Your task to perform on an android device: add a label to a message in the gmail app Image 0: 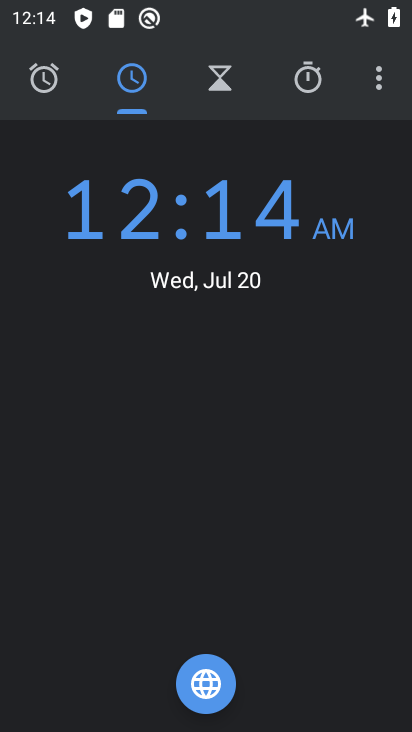
Step 0: press home button
Your task to perform on an android device: add a label to a message in the gmail app Image 1: 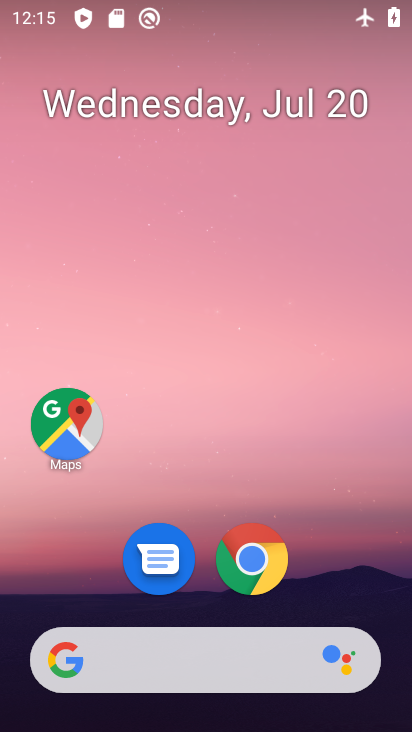
Step 1: drag from (369, 566) to (361, 110)
Your task to perform on an android device: add a label to a message in the gmail app Image 2: 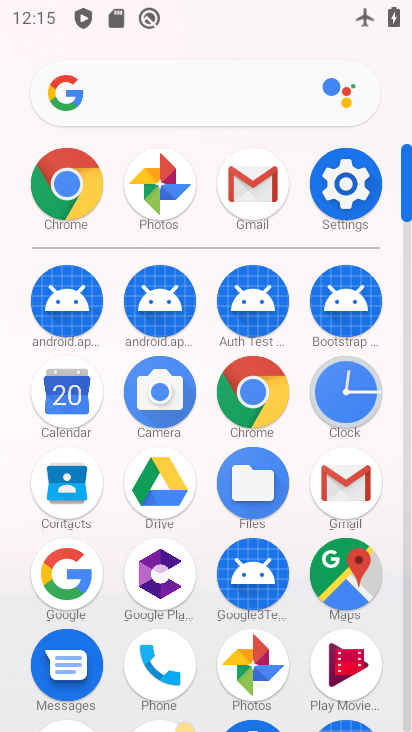
Step 2: click (354, 472)
Your task to perform on an android device: add a label to a message in the gmail app Image 3: 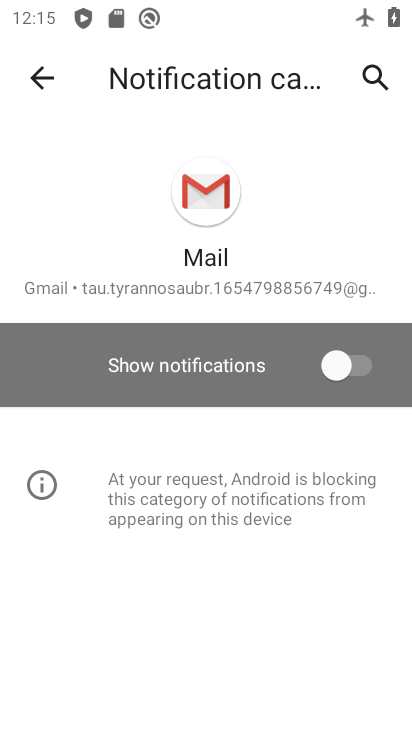
Step 3: press back button
Your task to perform on an android device: add a label to a message in the gmail app Image 4: 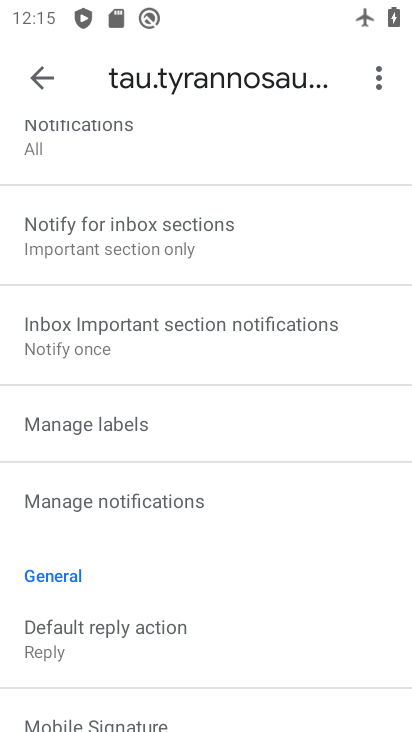
Step 4: press back button
Your task to perform on an android device: add a label to a message in the gmail app Image 5: 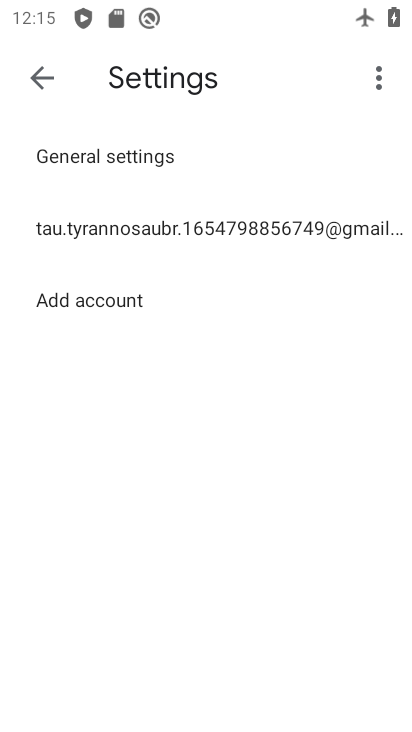
Step 5: press back button
Your task to perform on an android device: add a label to a message in the gmail app Image 6: 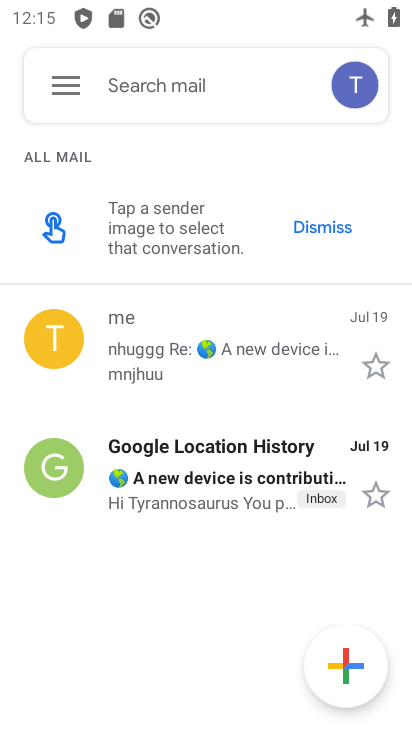
Step 6: click (215, 458)
Your task to perform on an android device: add a label to a message in the gmail app Image 7: 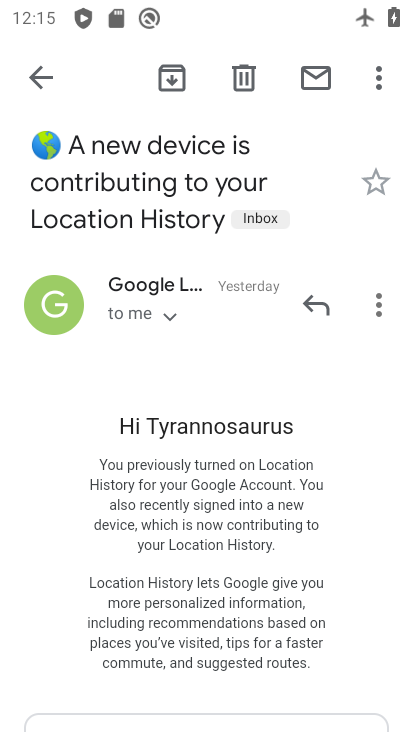
Step 7: click (254, 212)
Your task to perform on an android device: add a label to a message in the gmail app Image 8: 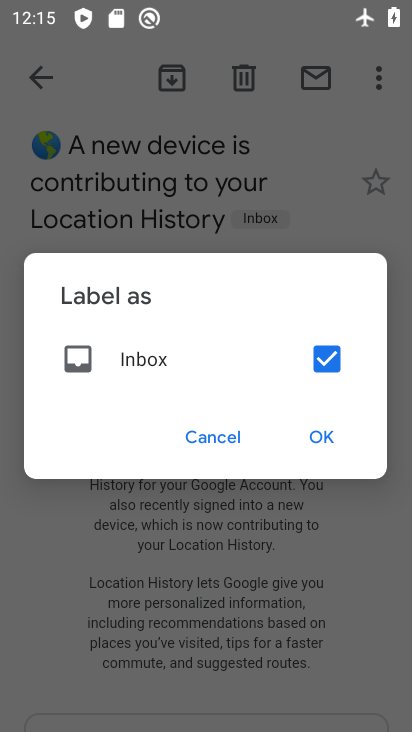
Step 8: click (336, 437)
Your task to perform on an android device: add a label to a message in the gmail app Image 9: 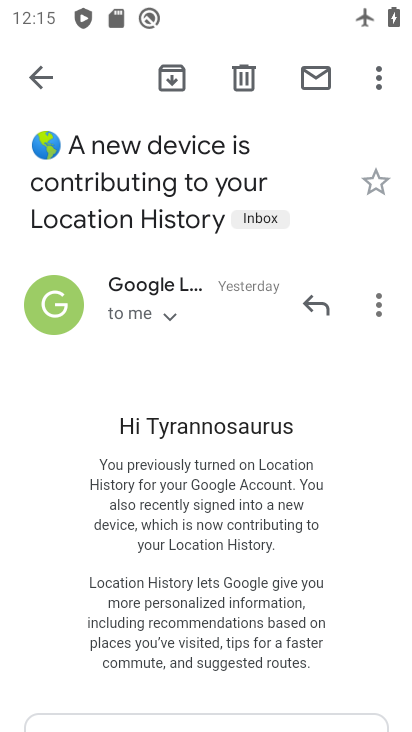
Step 9: click (272, 219)
Your task to perform on an android device: add a label to a message in the gmail app Image 10: 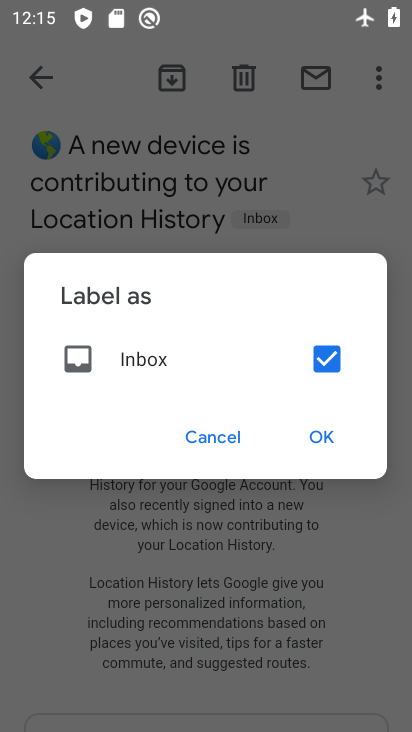
Step 10: click (321, 365)
Your task to perform on an android device: add a label to a message in the gmail app Image 11: 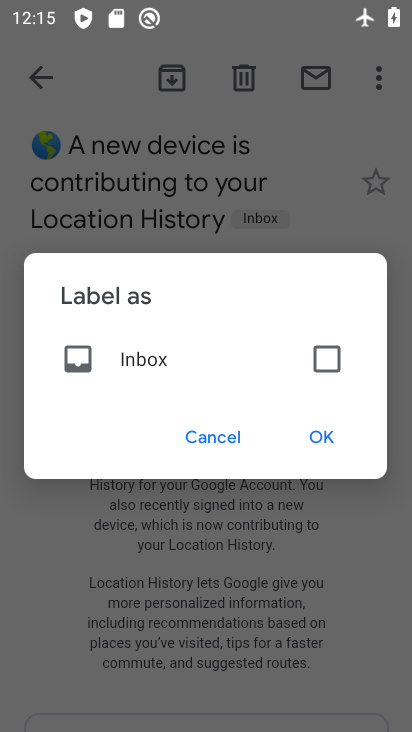
Step 11: click (332, 438)
Your task to perform on an android device: add a label to a message in the gmail app Image 12: 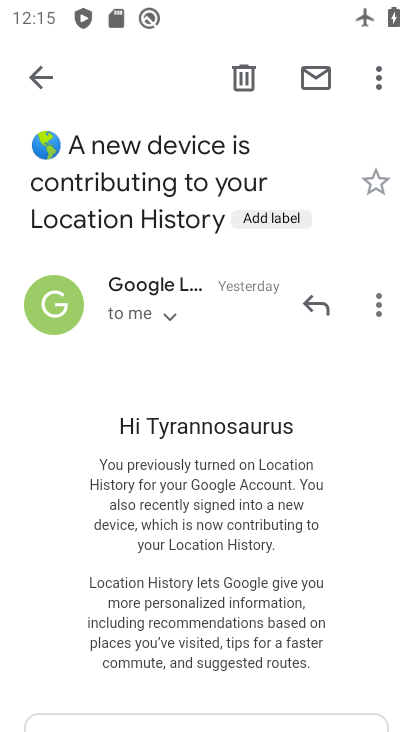
Step 12: click (276, 220)
Your task to perform on an android device: add a label to a message in the gmail app Image 13: 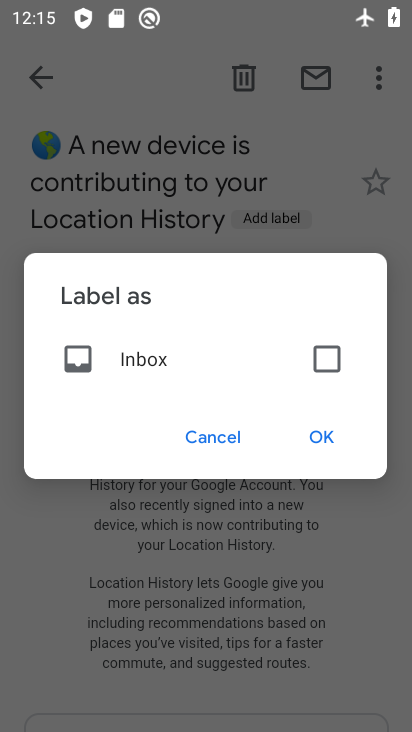
Step 13: click (324, 345)
Your task to perform on an android device: add a label to a message in the gmail app Image 14: 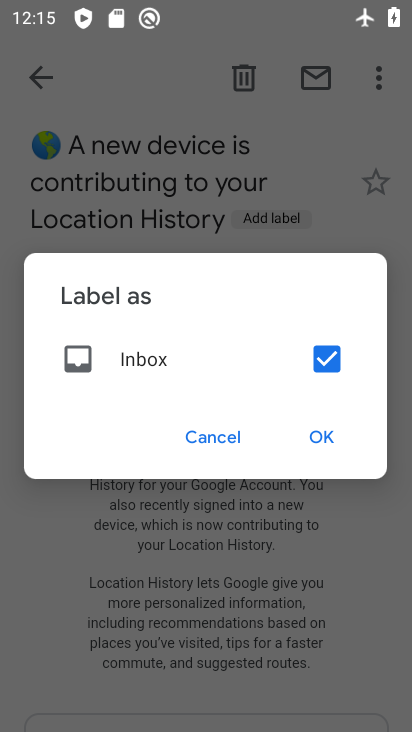
Step 14: click (331, 435)
Your task to perform on an android device: add a label to a message in the gmail app Image 15: 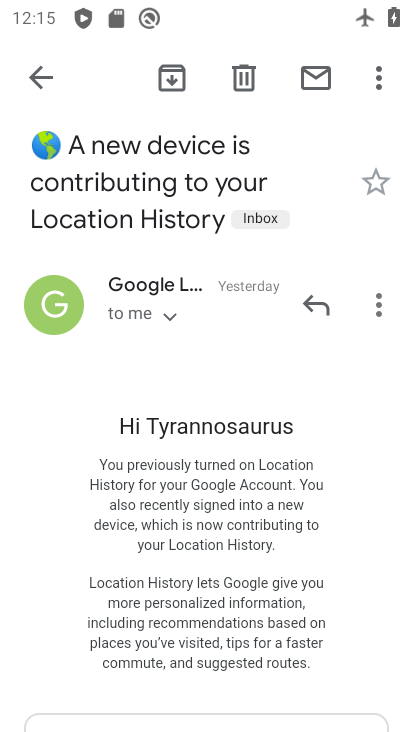
Step 15: task complete